Your task to perform on an android device: change timer sound Image 0: 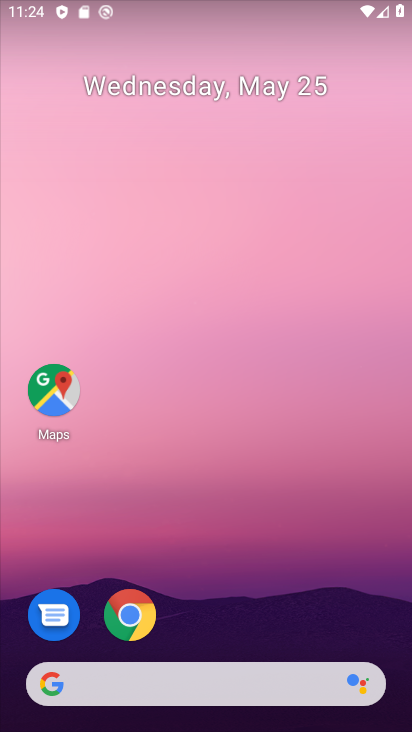
Step 0: drag from (337, 624) to (271, 86)
Your task to perform on an android device: change timer sound Image 1: 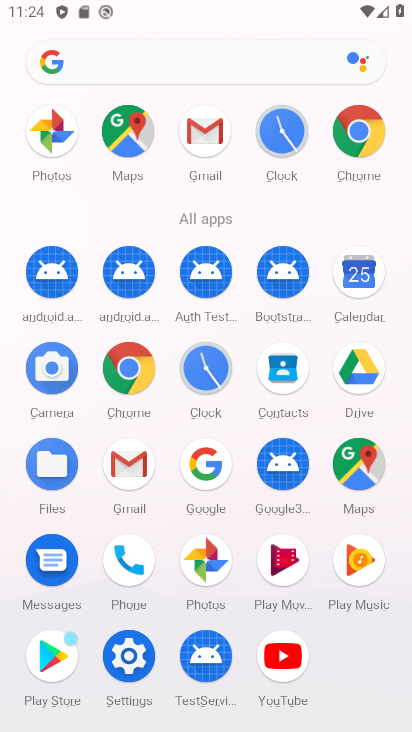
Step 1: click (182, 364)
Your task to perform on an android device: change timer sound Image 2: 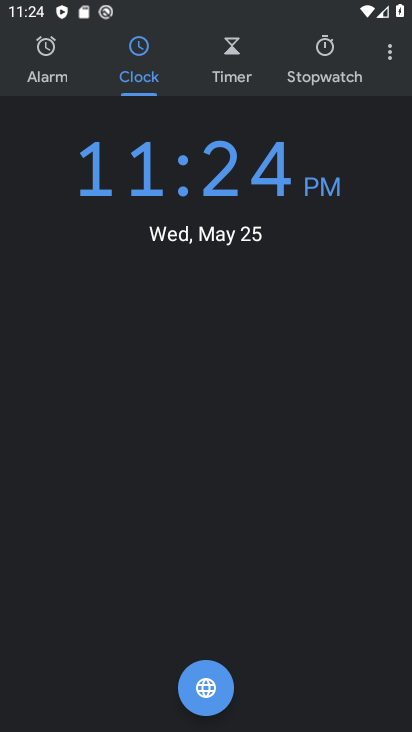
Step 2: click (384, 54)
Your task to perform on an android device: change timer sound Image 3: 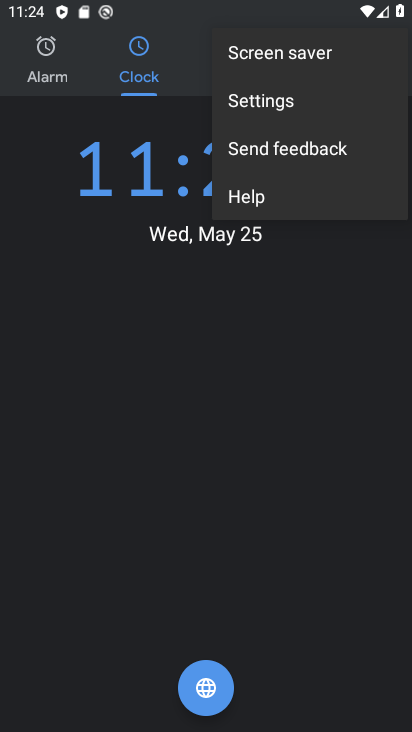
Step 3: click (327, 105)
Your task to perform on an android device: change timer sound Image 4: 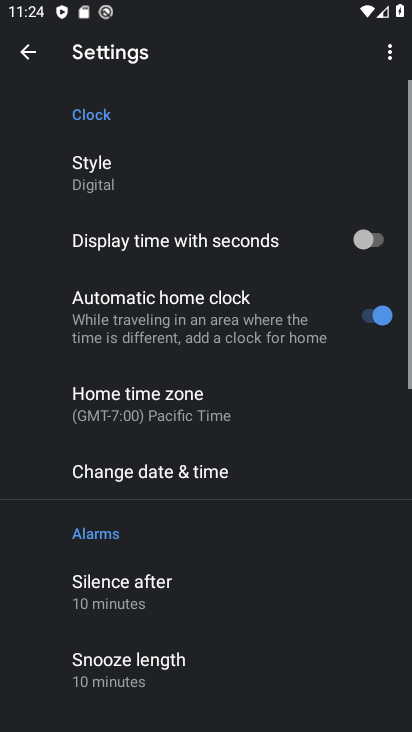
Step 4: drag from (180, 630) to (232, 177)
Your task to perform on an android device: change timer sound Image 5: 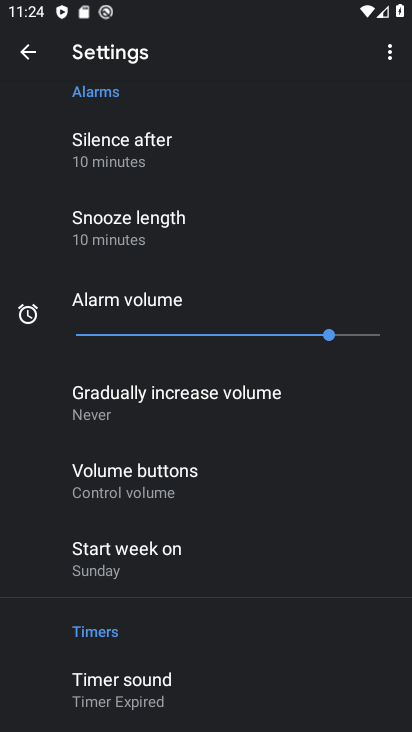
Step 5: click (190, 667)
Your task to perform on an android device: change timer sound Image 6: 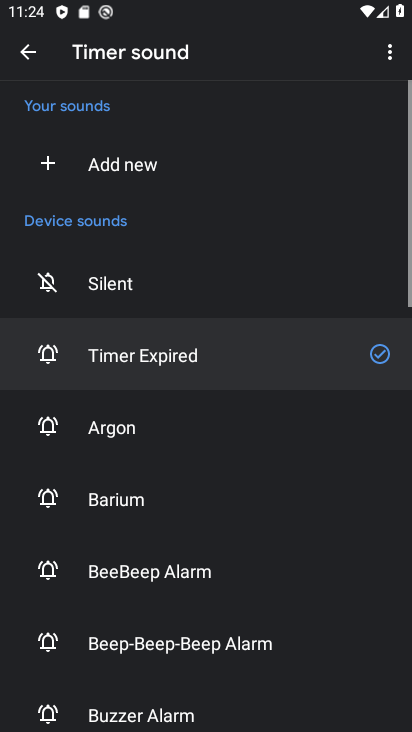
Step 6: click (188, 643)
Your task to perform on an android device: change timer sound Image 7: 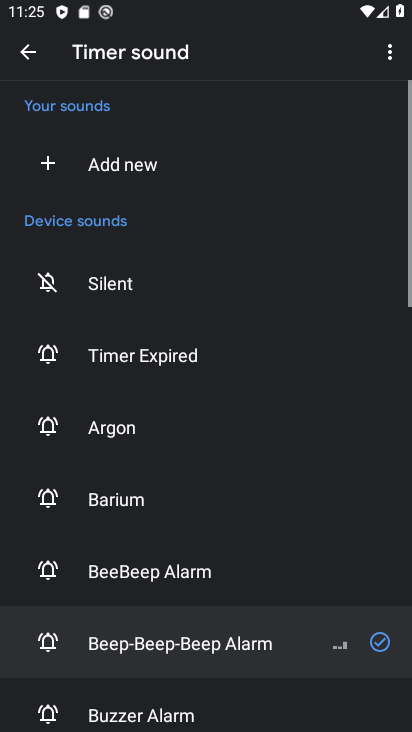
Step 7: task complete